Your task to perform on an android device: open a bookmark in the chrome app Image 0: 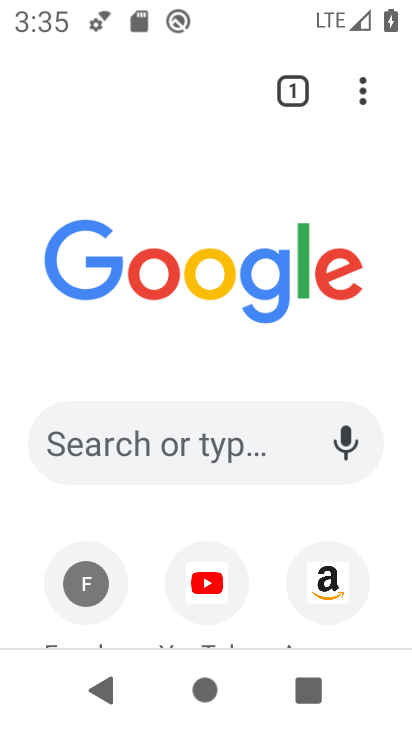
Step 0: click (376, 88)
Your task to perform on an android device: open a bookmark in the chrome app Image 1: 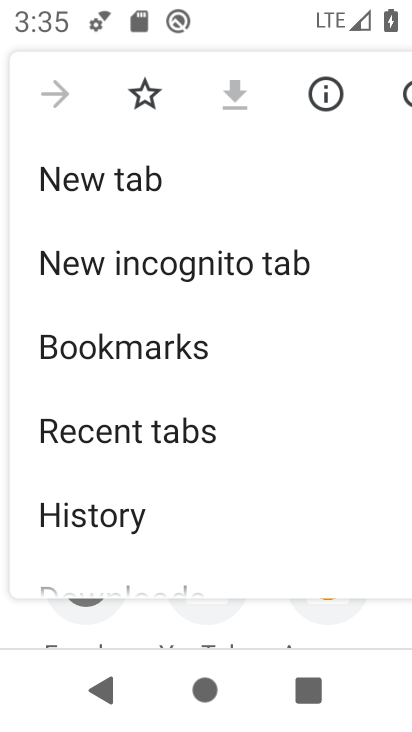
Step 1: click (239, 346)
Your task to perform on an android device: open a bookmark in the chrome app Image 2: 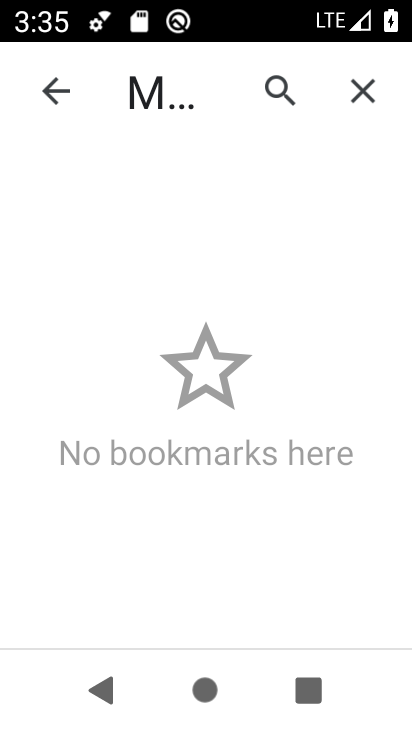
Step 2: task complete